Your task to perform on an android device: clear all cookies in the chrome app Image 0: 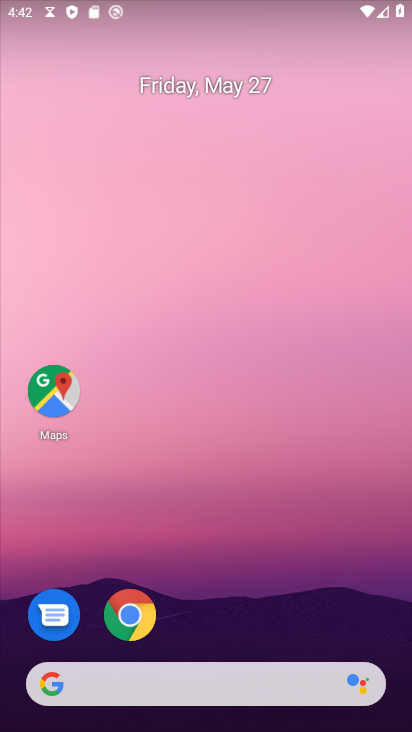
Step 0: drag from (275, 536) to (179, 44)
Your task to perform on an android device: clear all cookies in the chrome app Image 1: 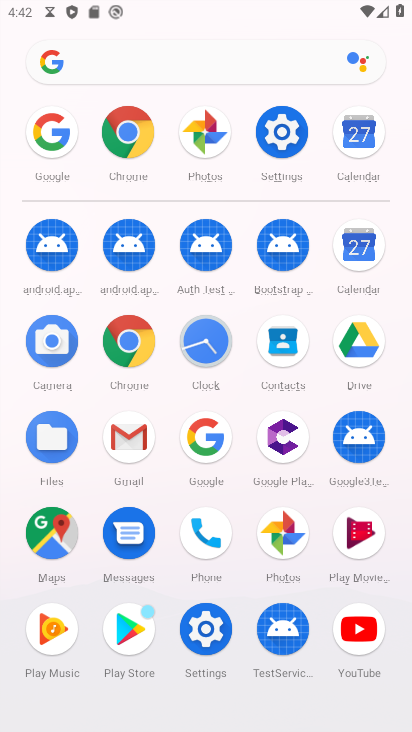
Step 1: click (121, 355)
Your task to perform on an android device: clear all cookies in the chrome app Image 2: 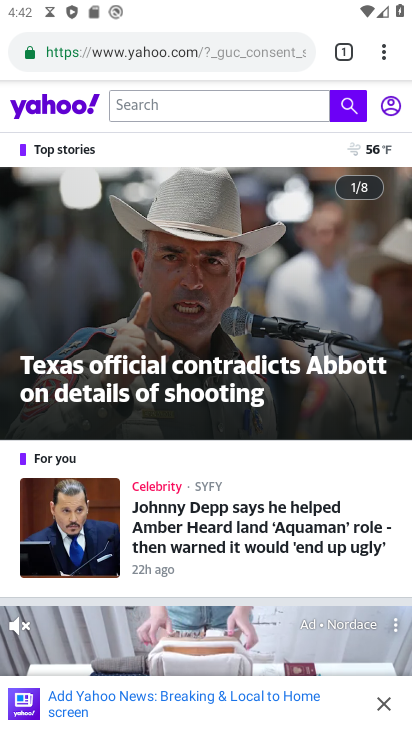
Step 2: click (379, 52)
Your task to perform on an android device: clear all cookies in the chrome app Image 3: 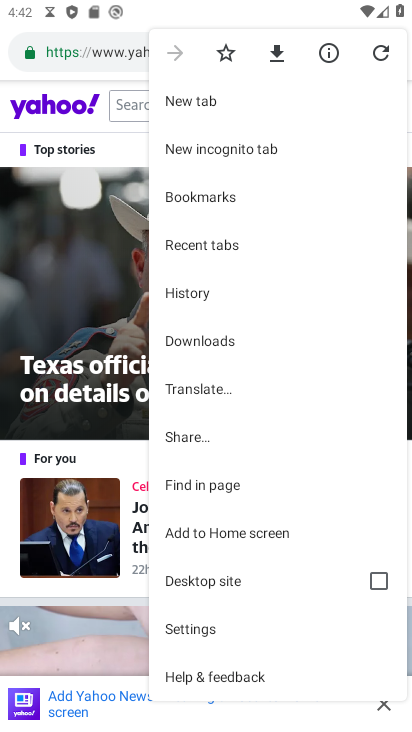
Step 3: click (219, 291)
Your task to perform on an android device: clear all cookies in the chrome app Image 4: 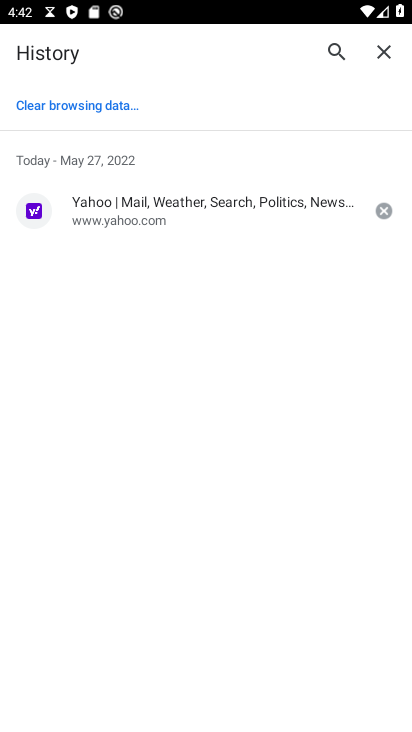
Step 4: click (87, 101)
Your task to perform on an android device: clear all cookies in the chrome app Image 5: 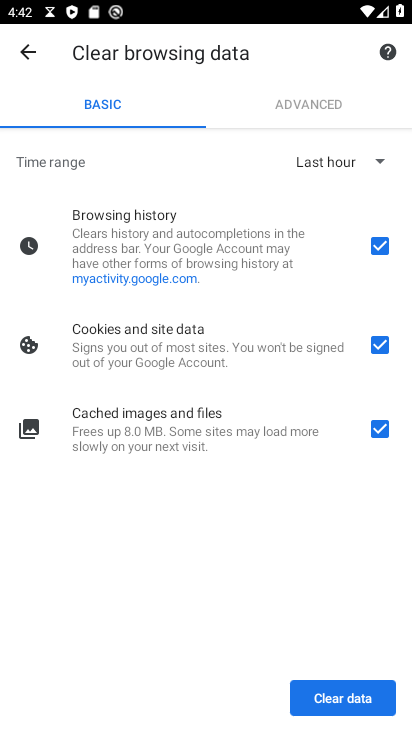
Step 5: click (350, 678)
Your task to perform on an android device: clear all cookies in the chrome app Image 6: 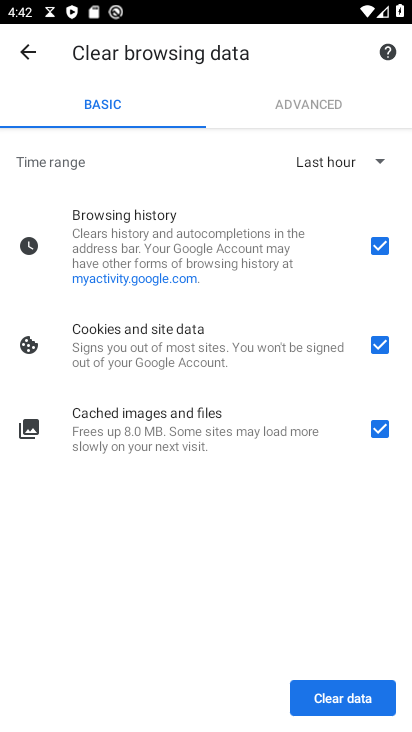
Step 6: click (345, 684)
Your task to perform on an android device: clear all cookies in the chrome app Image 7: 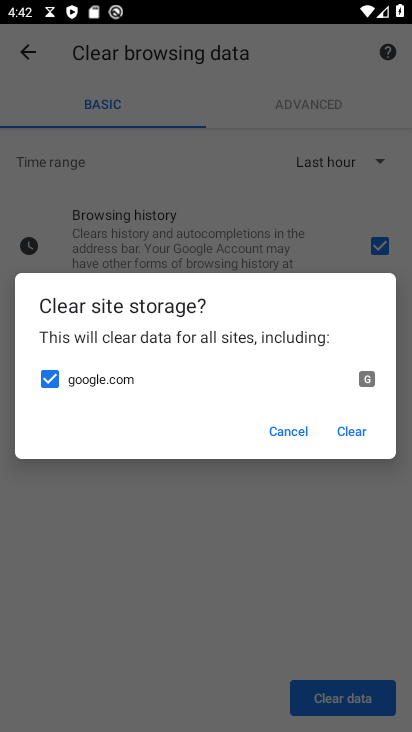
Step 7: click (345, 418)
Your task to perform on an android device: clear all cookies in the chrome app Image 8: 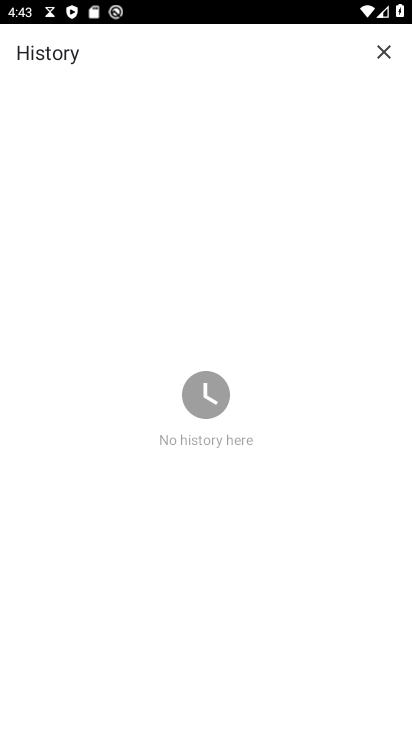
Step 8: task complete